Your task to perform on an android device: What's the weather today? Image 0: 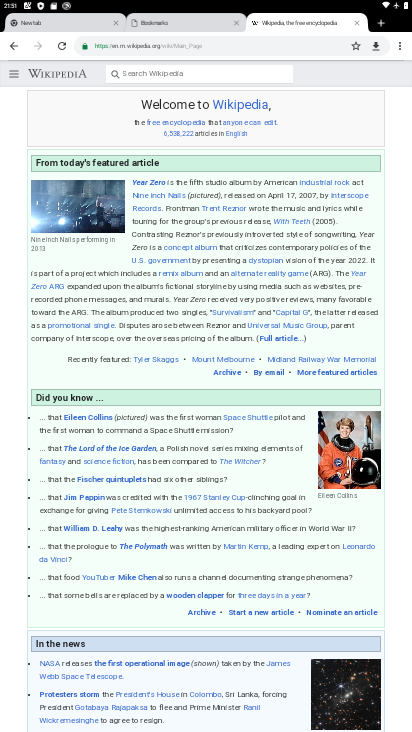
Step 0: press home button
Your task to perform on an android device: What's the weather today? Image 1: 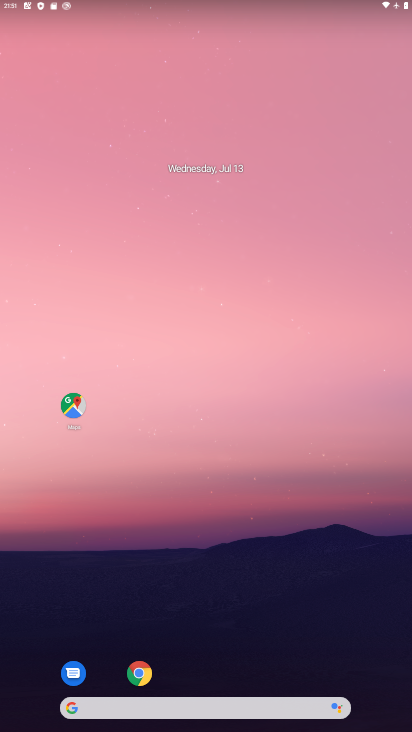
Step 1: drag from (189, 651) to (201, 118)
Your task to perform on an android device: What's the weather today? Image 2: 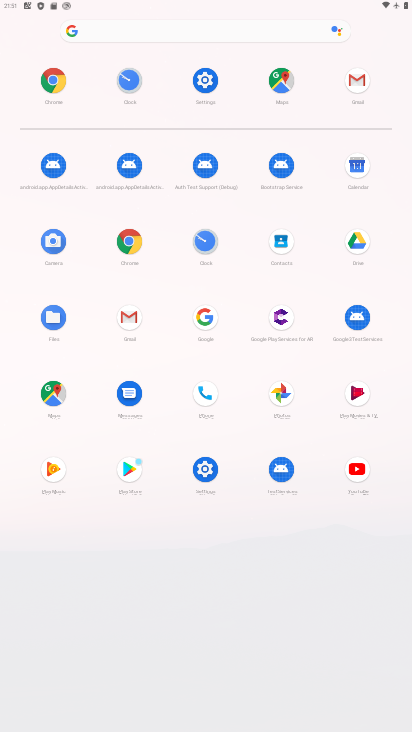
Step 2: click (199, 326)
Your task to perform on an android device: What's the weather today? Image 3: 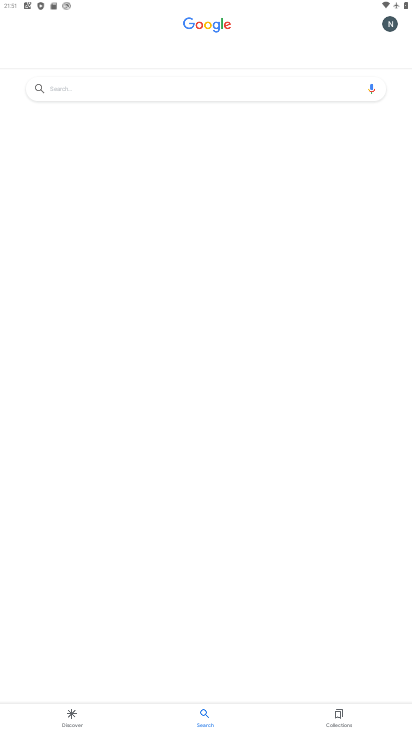
Step 3: click (155, 86)
Your task to perform on an android device: What's the weather today? Image 4: 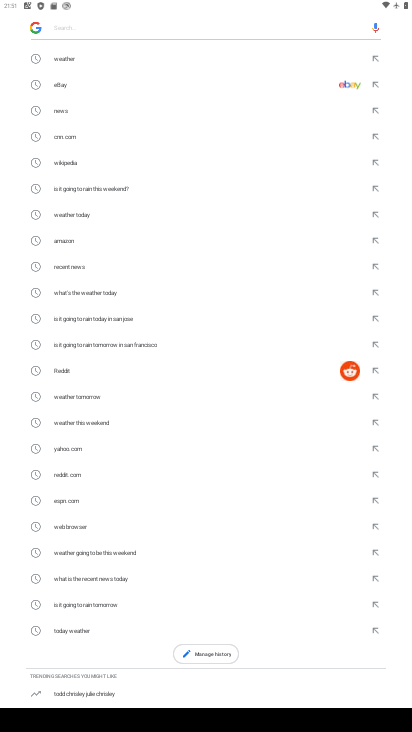
Step 4: click (77, 57)
Your task to perform on an android device: What's the weather today? Image 5: 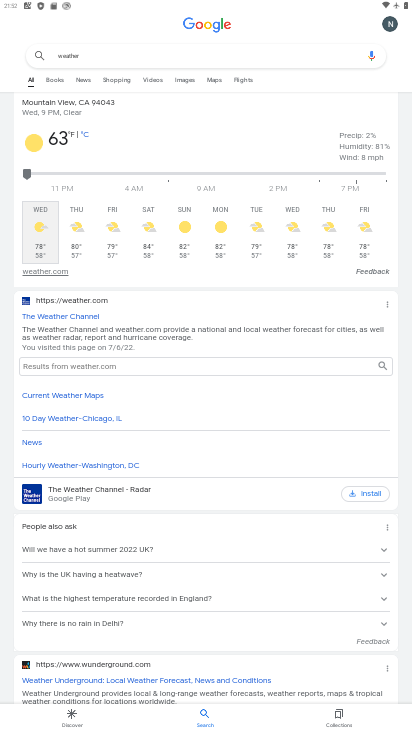
Step 5: task complete